Your task to perform on an android device: manage bookmarks in the chrome app Image 0: 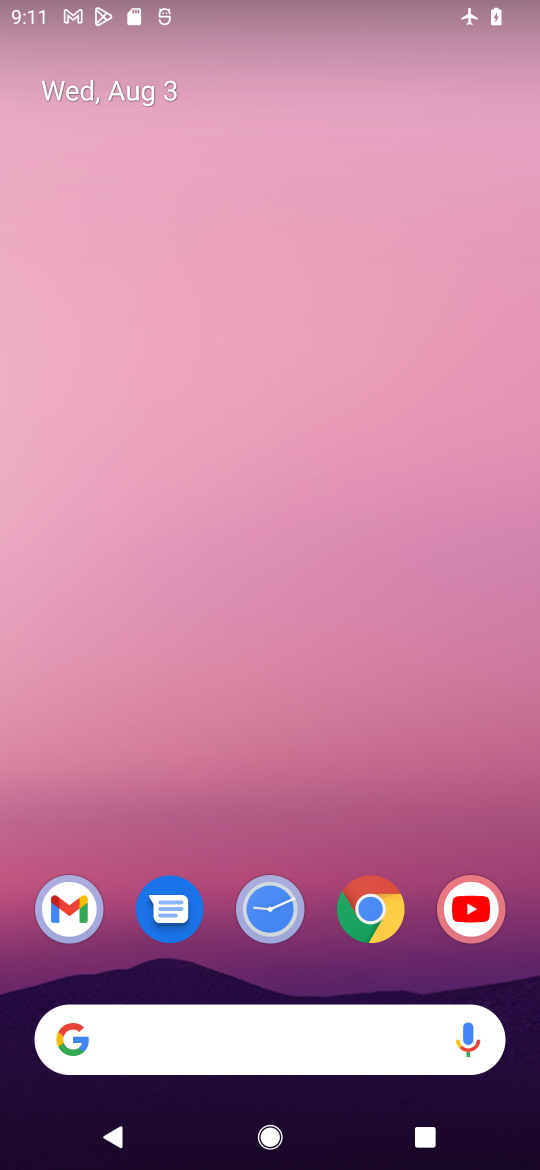
Step 0: press home button
Your task to perform on an android device: manage bookmarks in the chrome app Image 1: 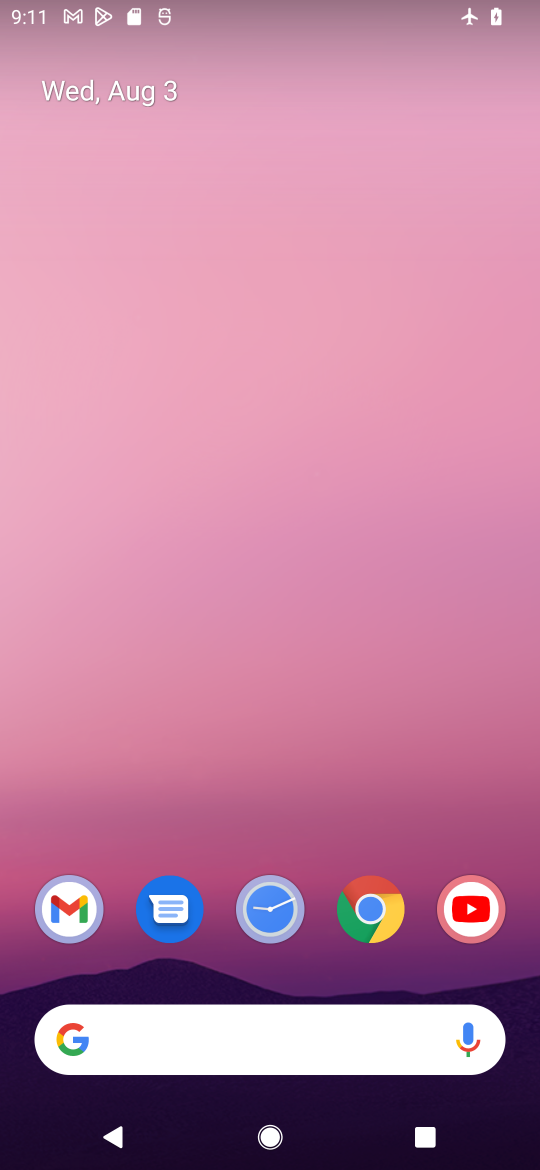
Step 1: drag from (390, 733) to (395, 207)
Your task to perform on an android device: manage bookmarks in the chrome app Image 2: 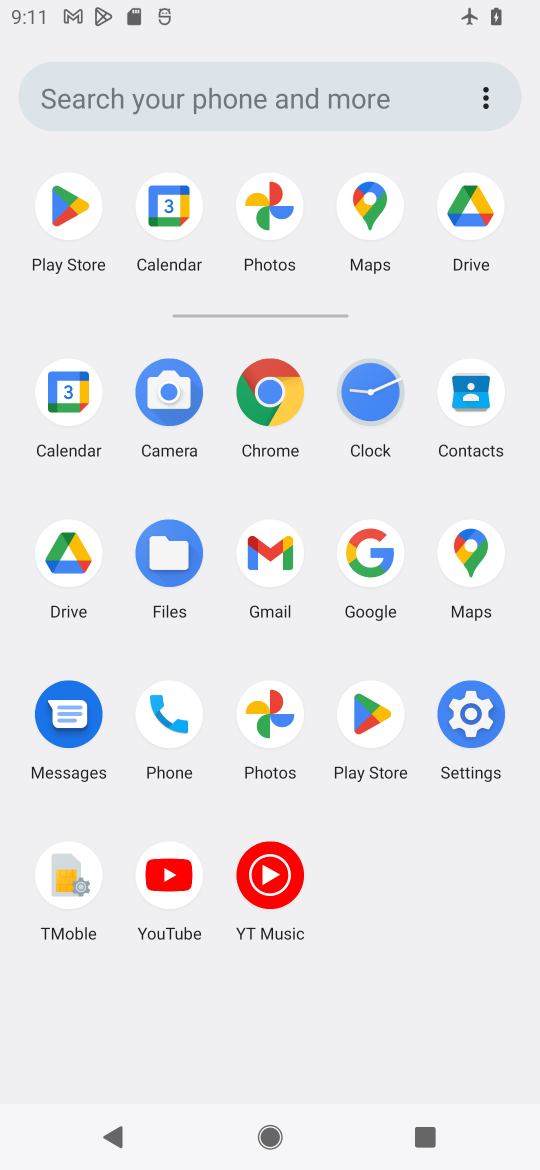
Step 2: click (280, 402)
Your task to perform on an android device: manage bookmarks in the chrome app Image 3: 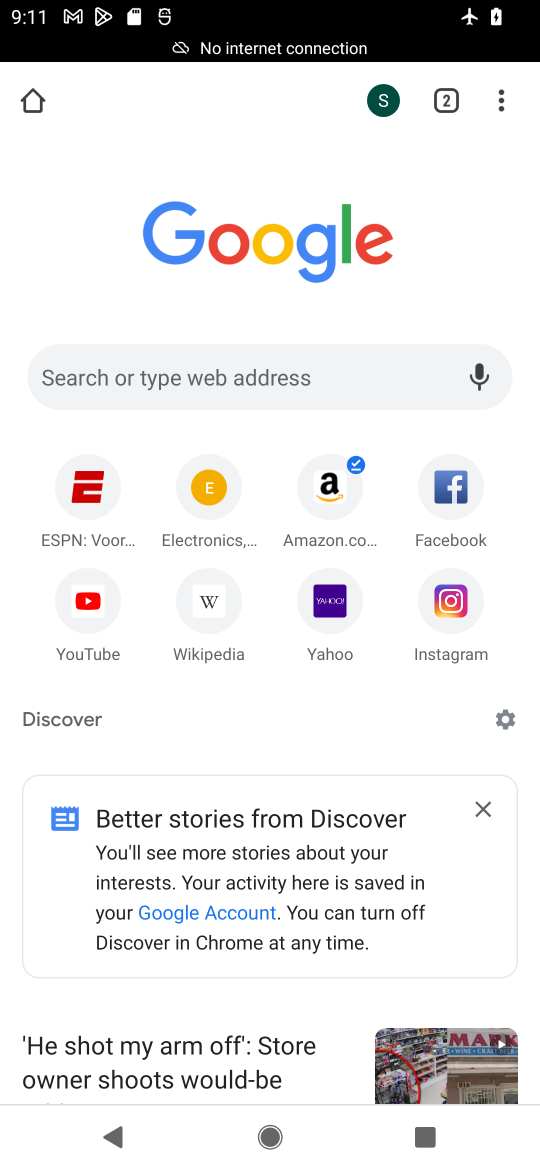
Step 3: click (501, 101)
Your task to perform on an android device: manage bookmarks in the chrome app Image 4: 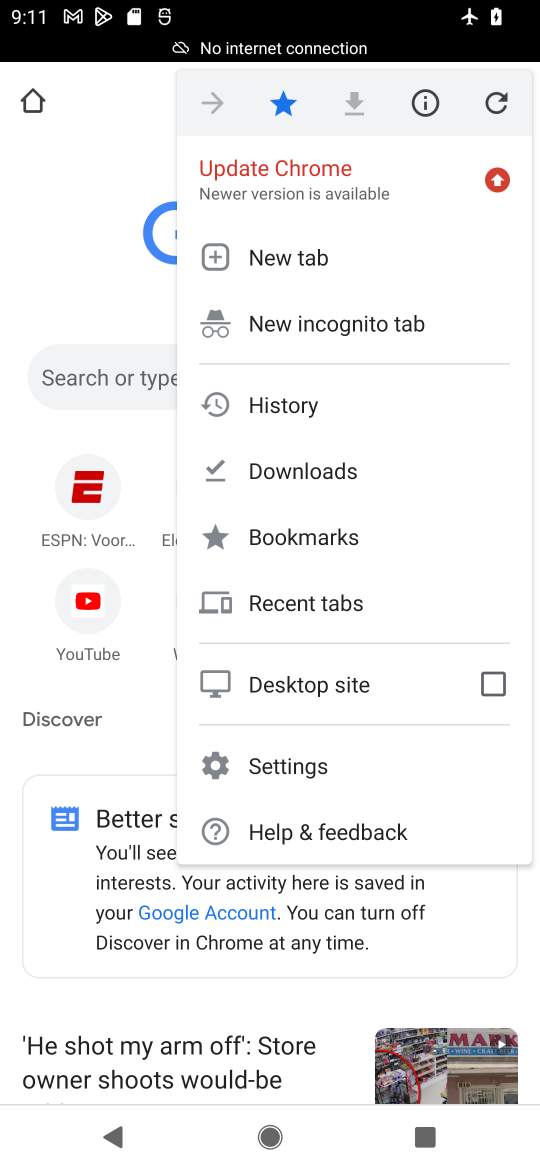
Step 4: click (324, 539)
Your task to perform on an android device: manage bookmarks in the chrome app Image 5: 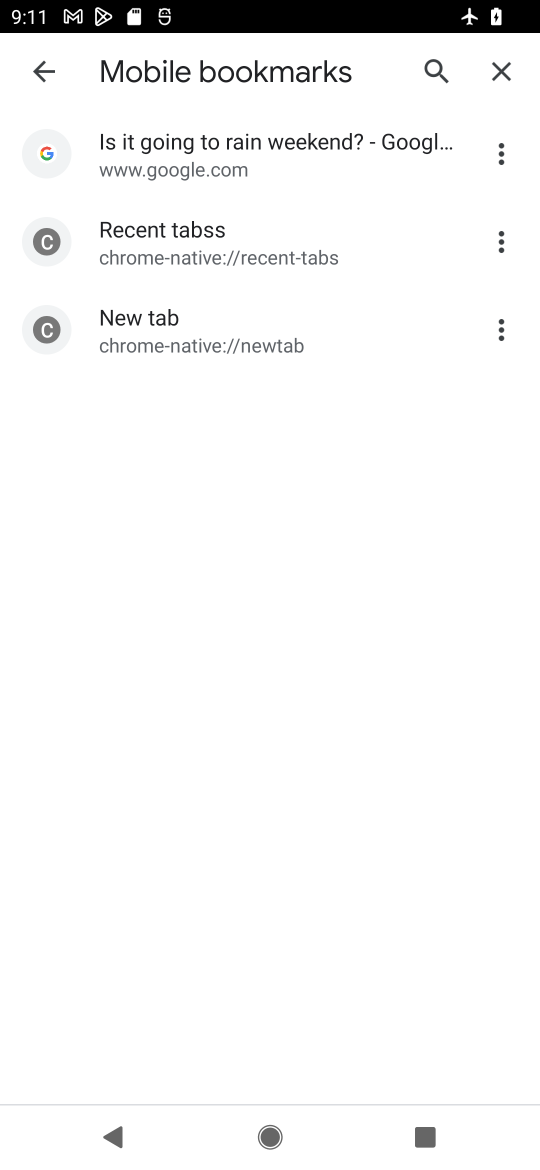
Step 5: click (502, 241)
Your task to perform on an android device: manage bookmarks in the chrome app Image 6: 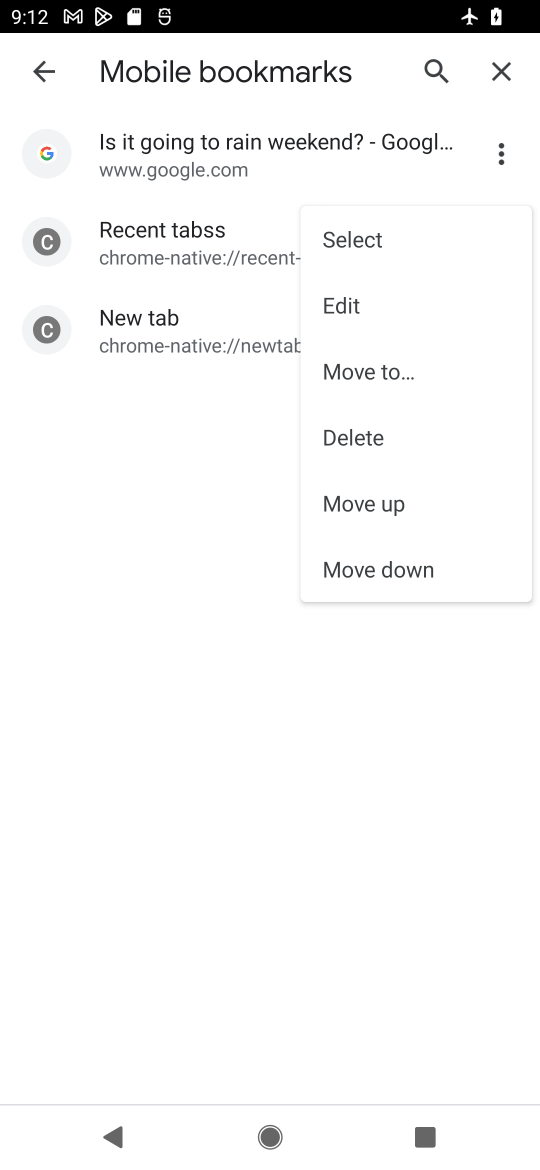
Step 6: click (378, 309)
Your task to perform on an android device: manage bookmarks in the chrome app Image 7: 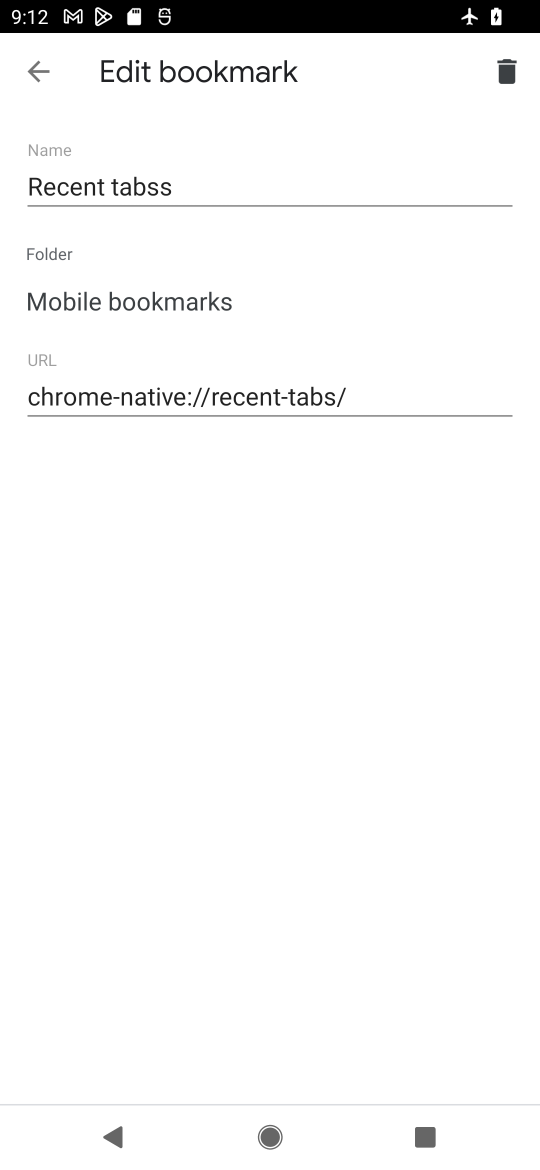
Step 7: click (291, 178)
Your task to perform on an android device: manage bookmarks in the chrome app Image 8: 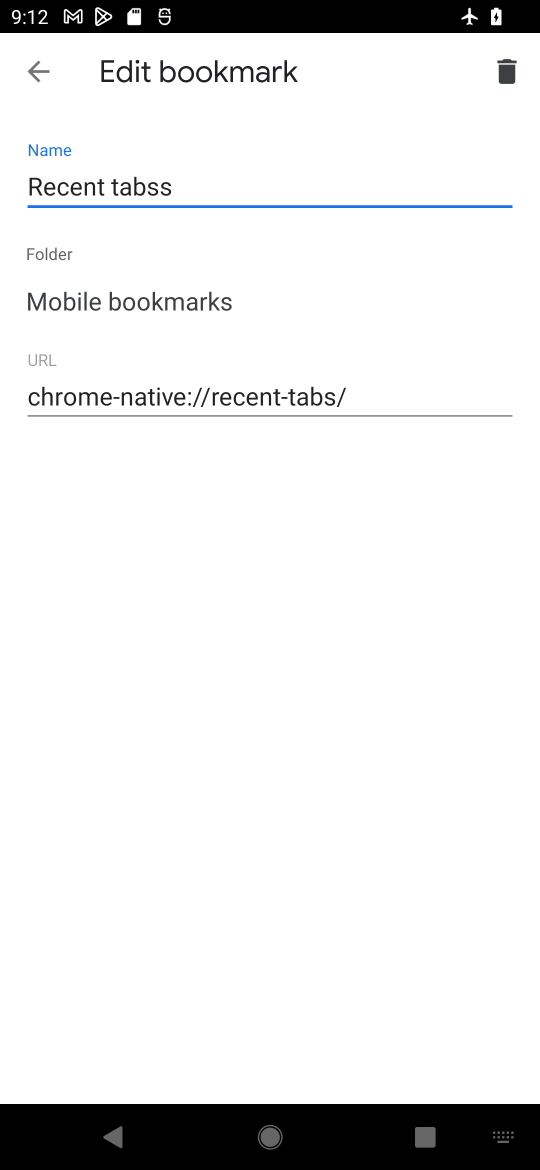
Step 8: type "s"
Your task to perform on an android device: manage bookmarks in the chrome app Image 9: 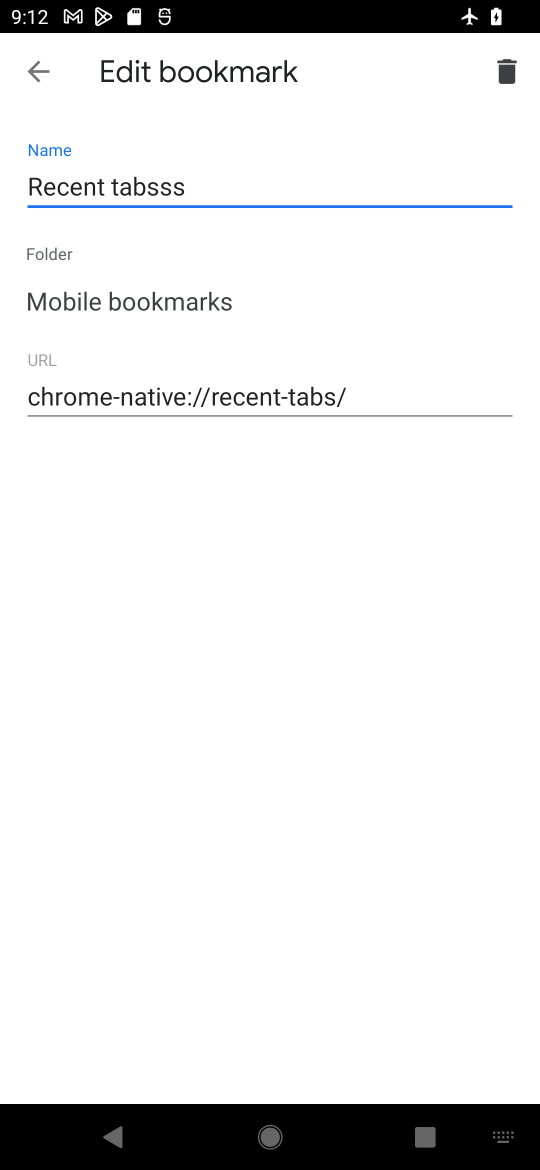
Step 9: click (38, 66)
Your task to perform on an android device: manage bookmarks in the chrome app Image 10: 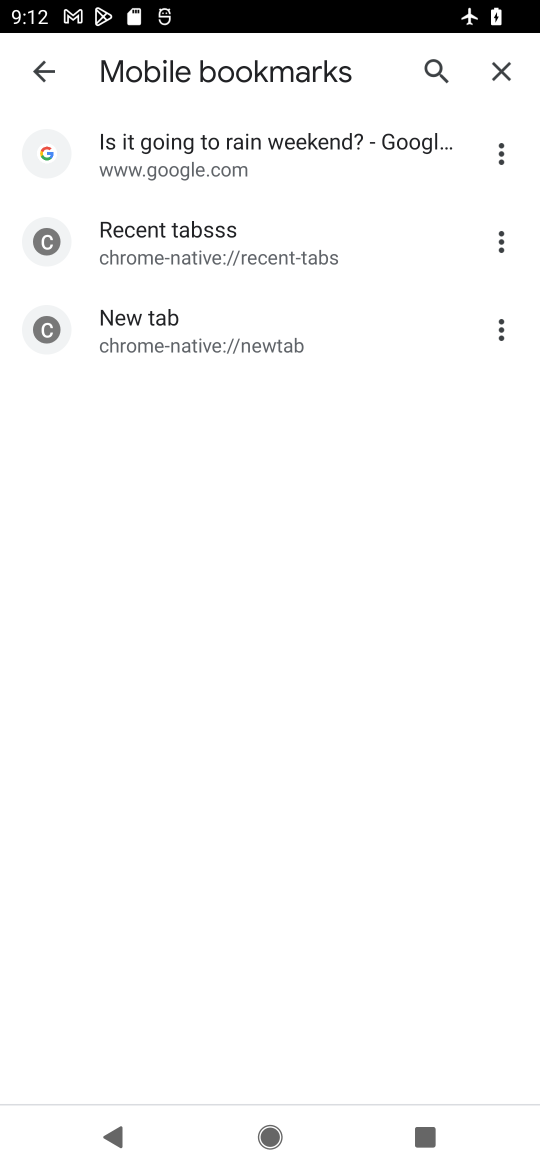
Step 10: task complete